Your task to perform on an android device: Show me the alarms in the clock app Image 0: 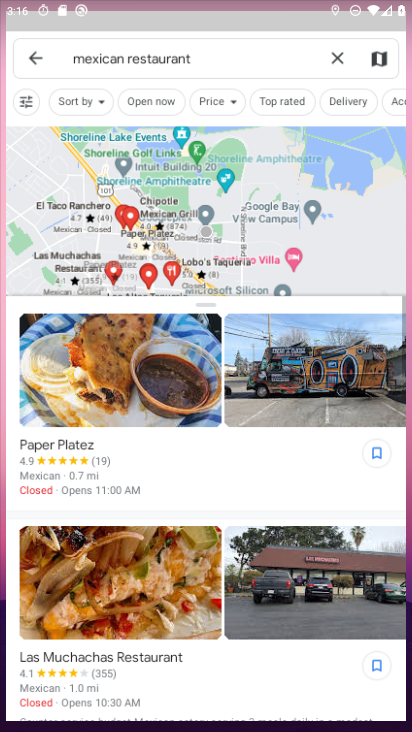
Step 0: drag from (196, 368) to (189, 254)
Your task to perform on an android device: Show me the alarms in the clock app Image 1: 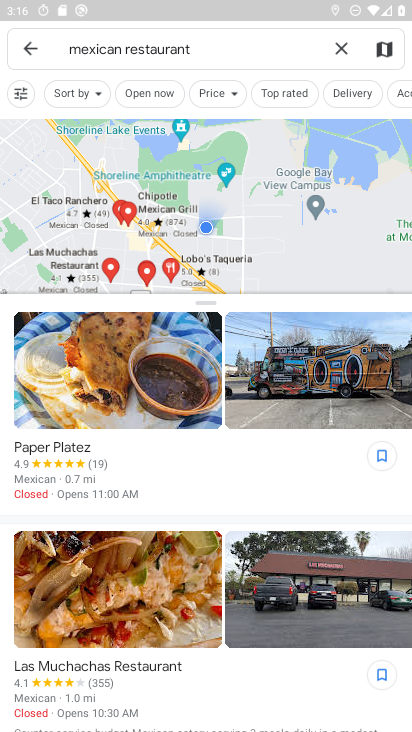
Step 1: click (336, 47)
Your task to perform on an android device: Show me the alarms in the clock app Image 2: 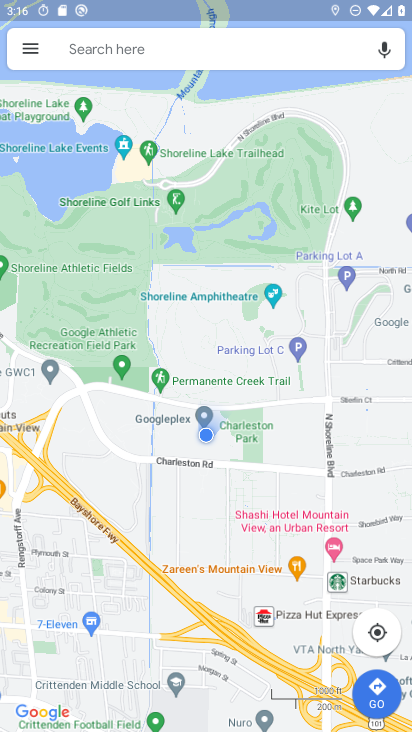
Step 2: press back button
Your task to perform on an android device: Show me the alarms in the clock app Image 3: 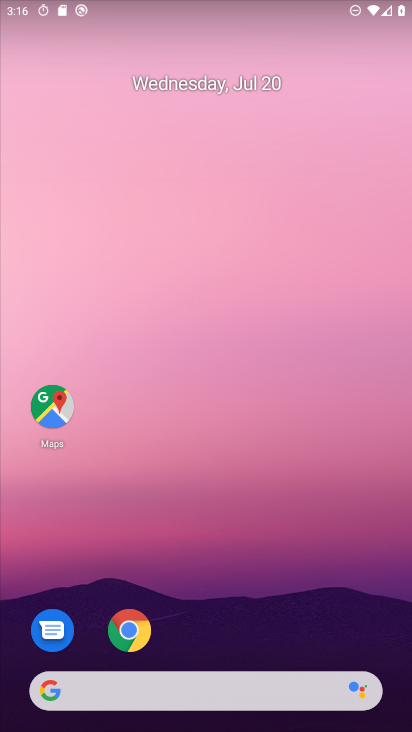
Step 3: drag from (231, 692) to (116, 86)
Your task to perform on an android device: Show me the alarms in the clock app Image 4: 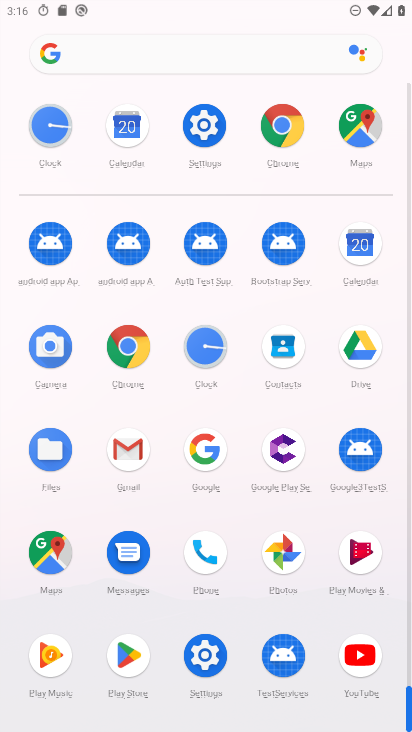
Step 4: click (212, 346)
Your task to perform on an android device: Show me the alarms in the clock app Image 5: 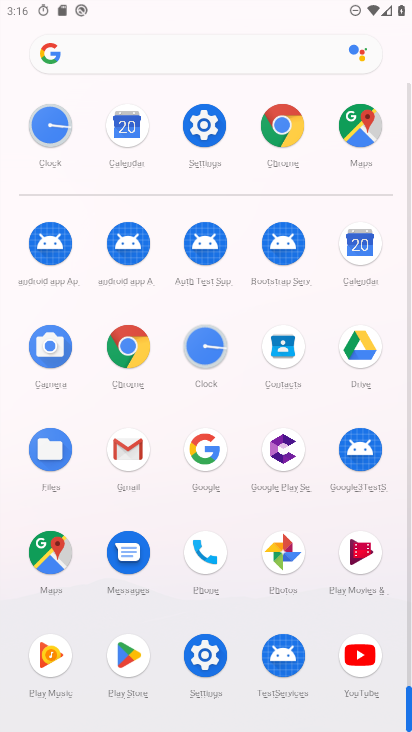
Step 5: click (216, 349)
Your task to perform on an android device: Show me the alarms in the clock app Image 6: 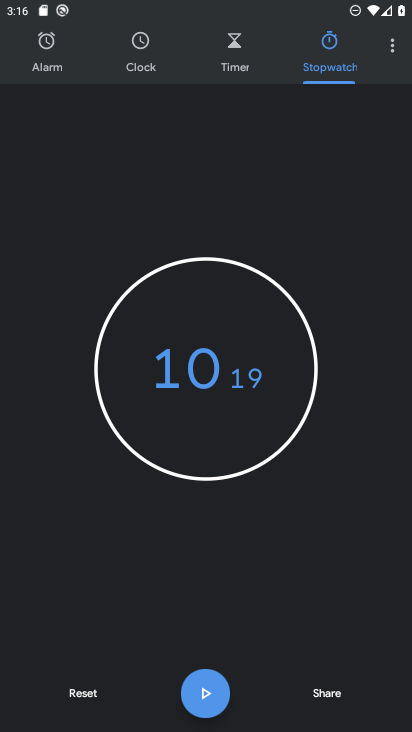
Step 6: click (44, 46)
Your task to perform on an android device: Show me the alarms in the clock app Image 7: 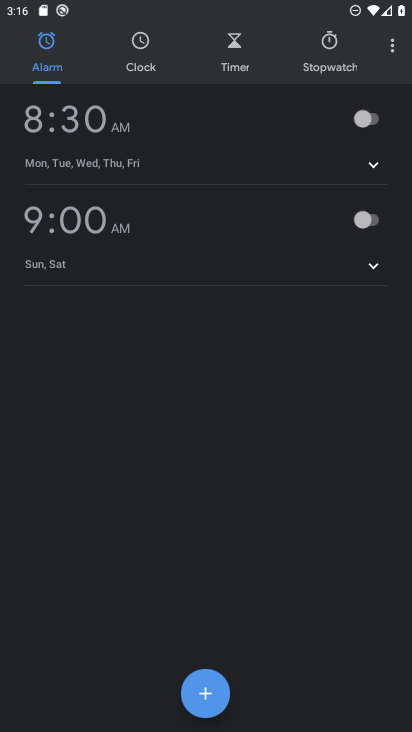
Step 7: click (361, 113)
Your task to perform on an android device: Show me the alarms in the clock app Image 8: 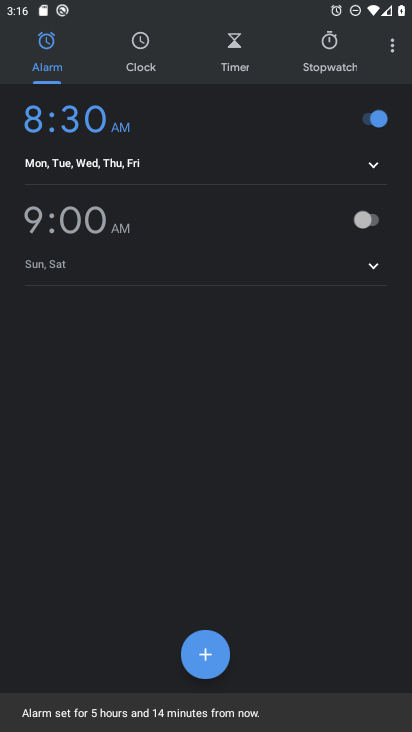
Step 8: click (361, 113)
Your task to perform on an android device: Show me the alarms in the clock app Image 9: 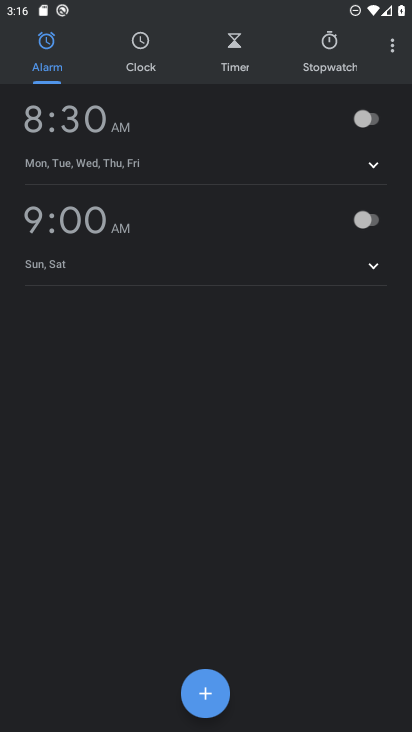
Step 9: task complete